Your task to perform on an android device: Open notification settings Image 0: 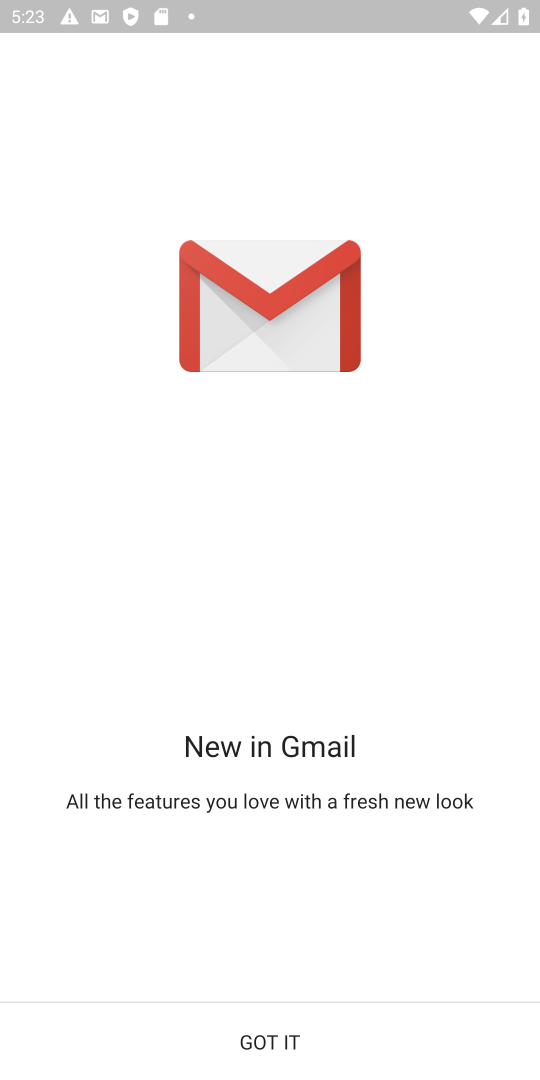
Step 0: press home button
Your task to perform on an android device: Open notification settings Image 1: 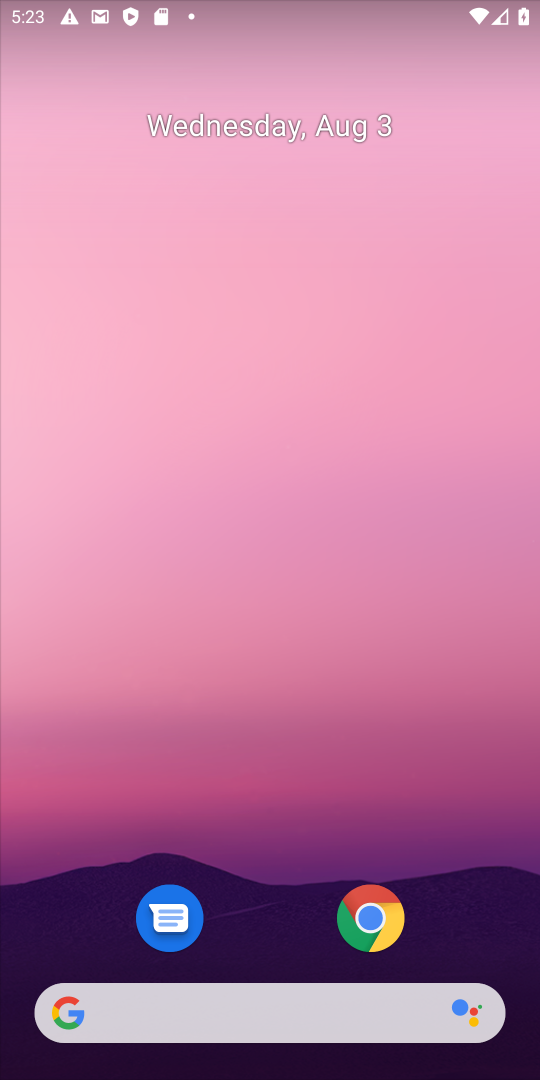
Step 1: drag from (293, 1039) to (180, 176)
Your task to perform on an android device: Open notification settings Image 2: 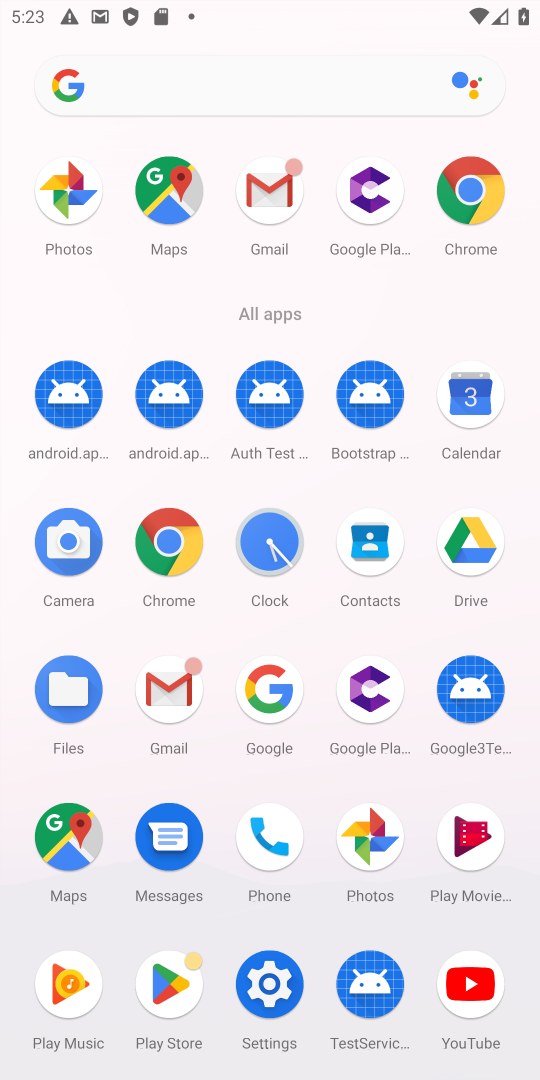
Step 2: click (261, 966)
Your task to perform on an android device: Open notification settings Image 3: 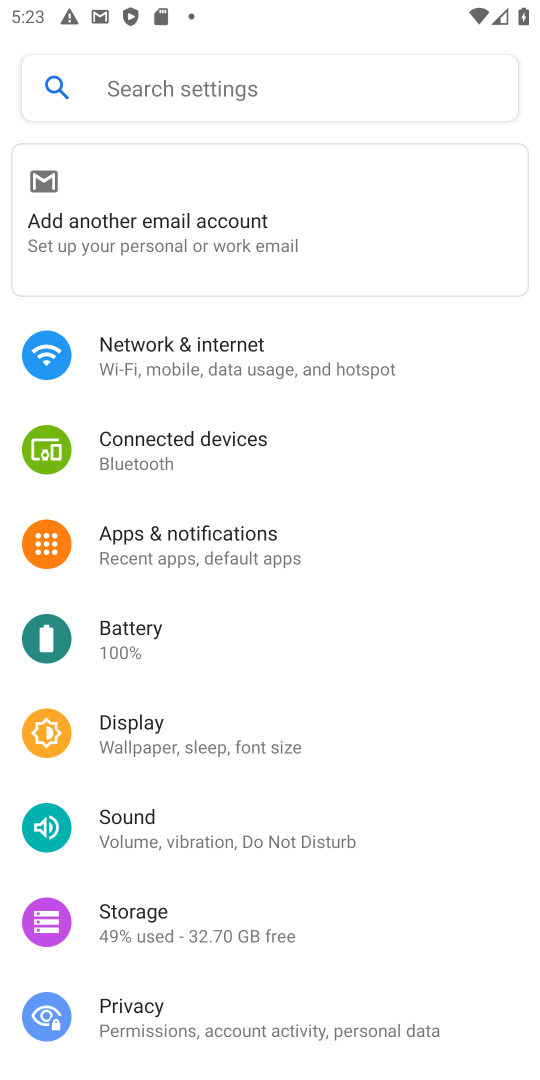
Step 3: click (226, 544)
Your task to perform on an android device: Open notification settings Image 4: 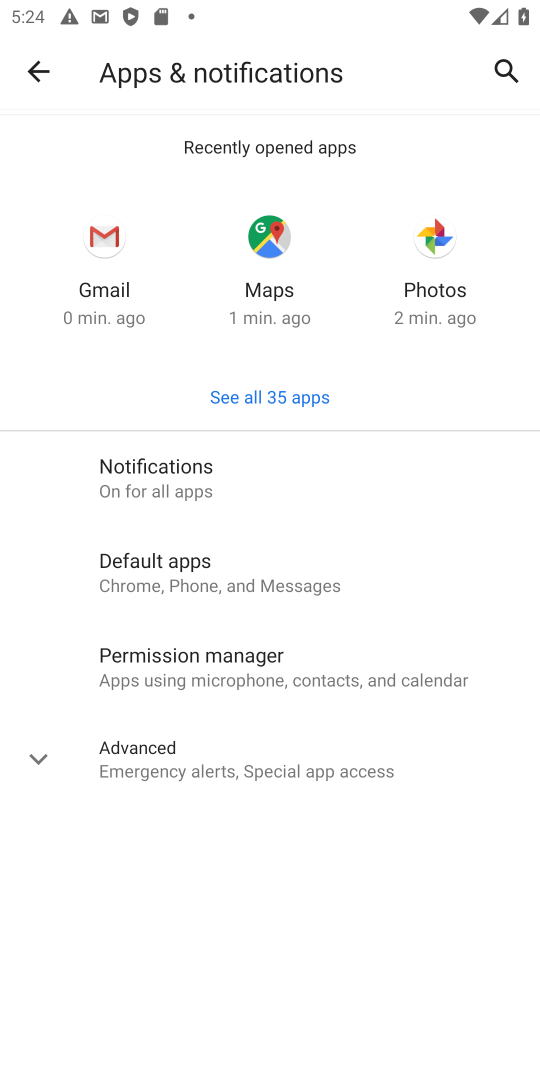
Step 4: task complete